Your task to perform on an android device: install app "Venmo" Image 0: 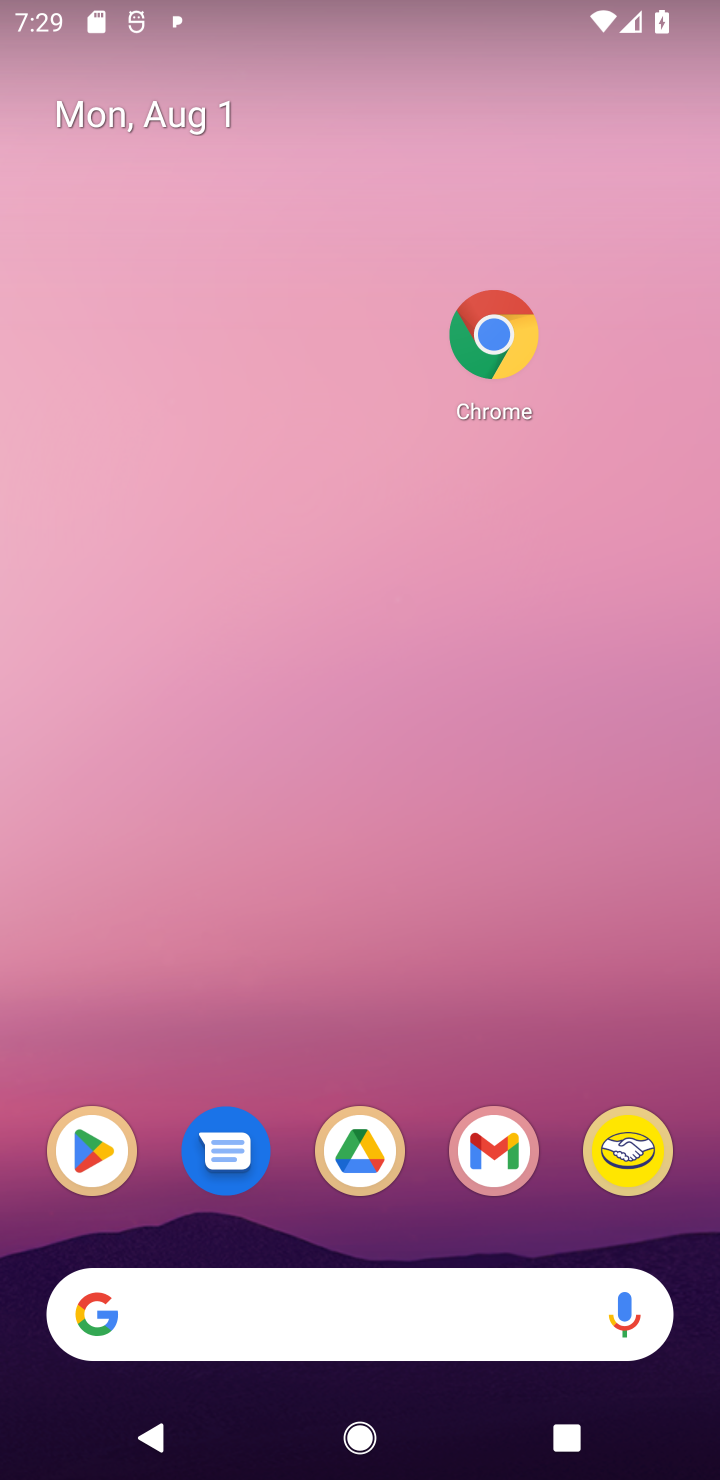
Step 0: click (91, 1161)
Your task to perform on an android device: install app "Venmo" Image 1: 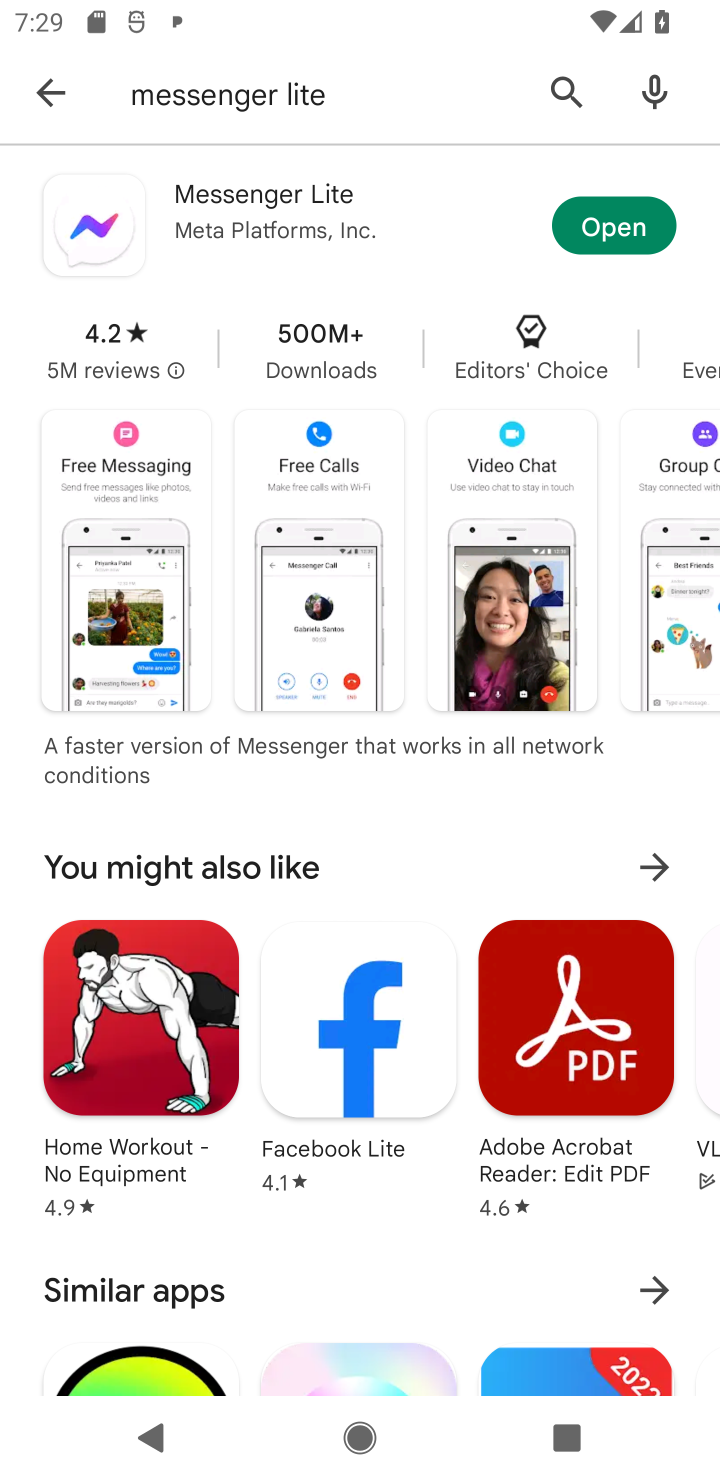
Step 1: click (558, 89)
Your task to perform on an android device: install app "Venmo" Image 2: 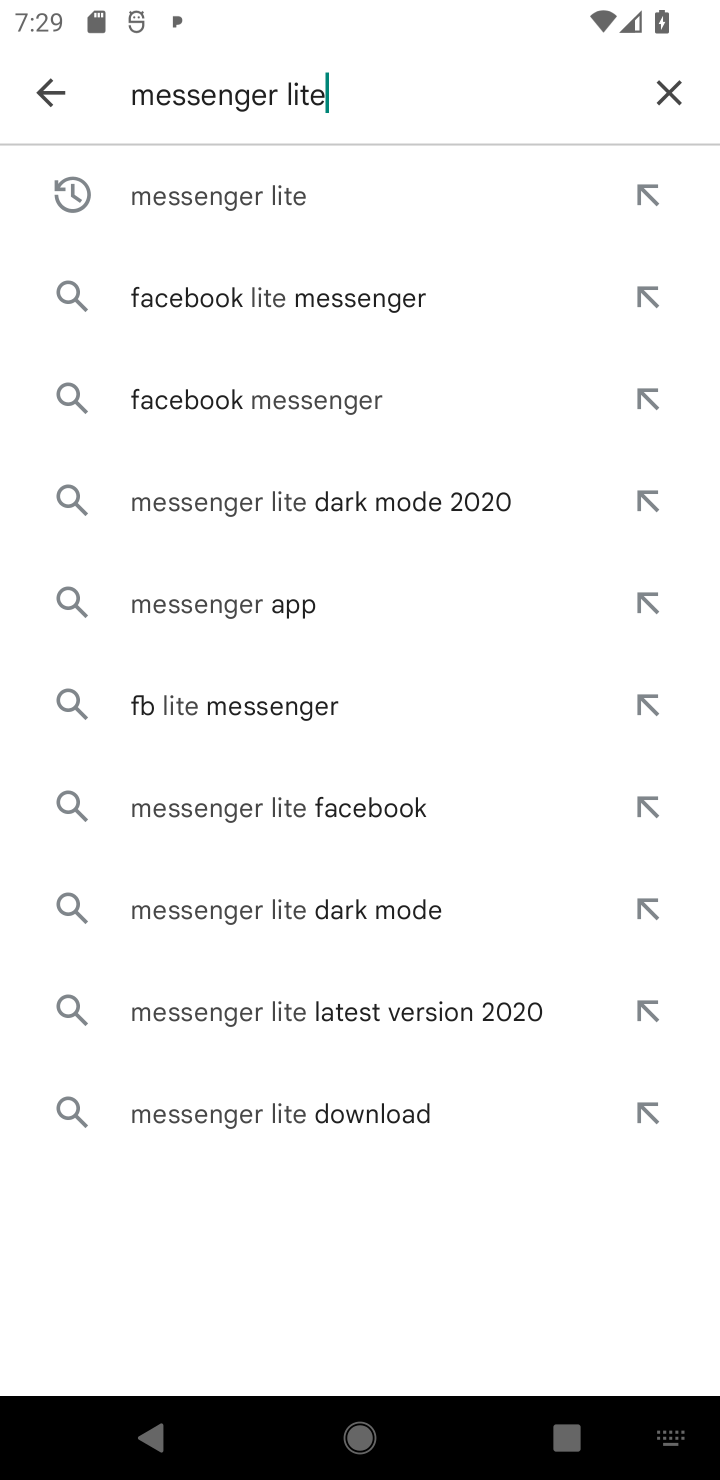
Step 2: click (671, 94)
Your task to perform on an android device: install app "Venmo" Image 3: 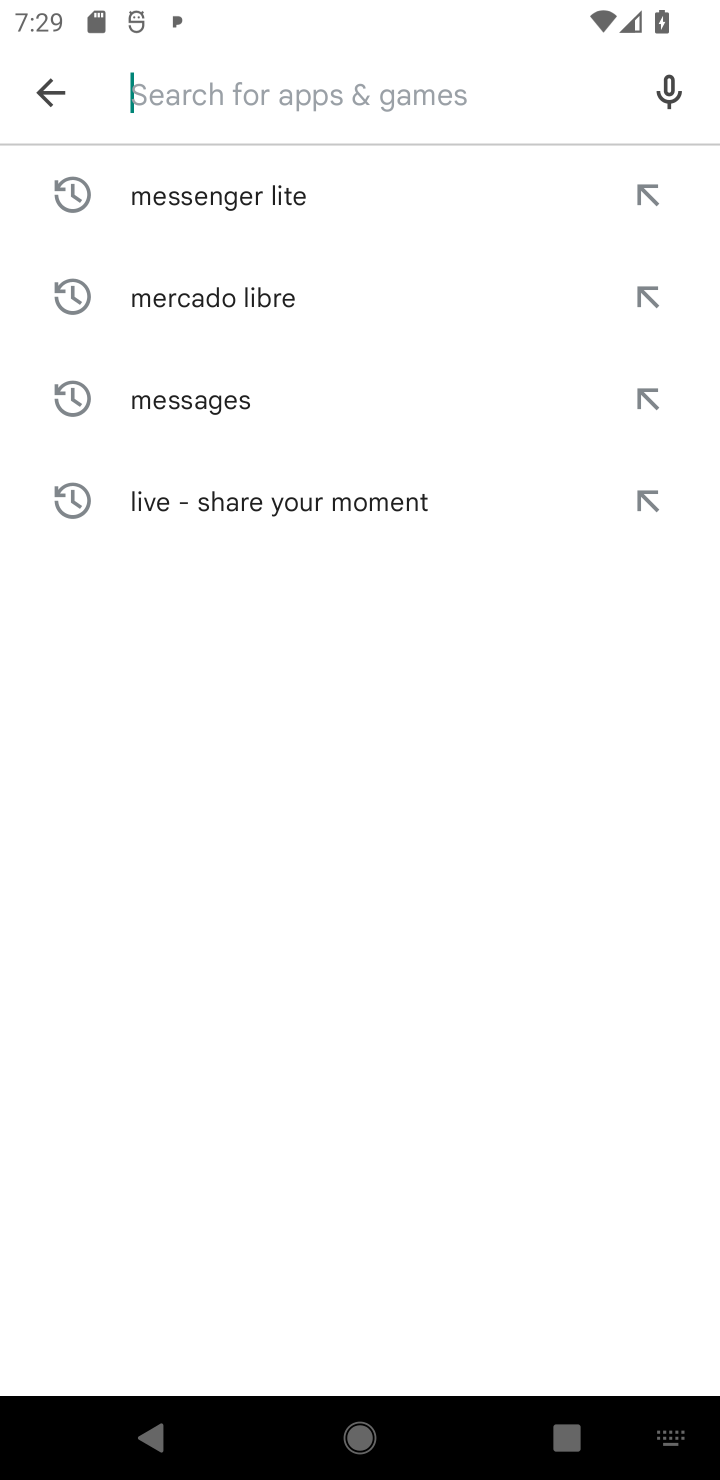
Step 3: type "Venmo"
Your task to perform on an android device: install app "Venmo" Image 4: 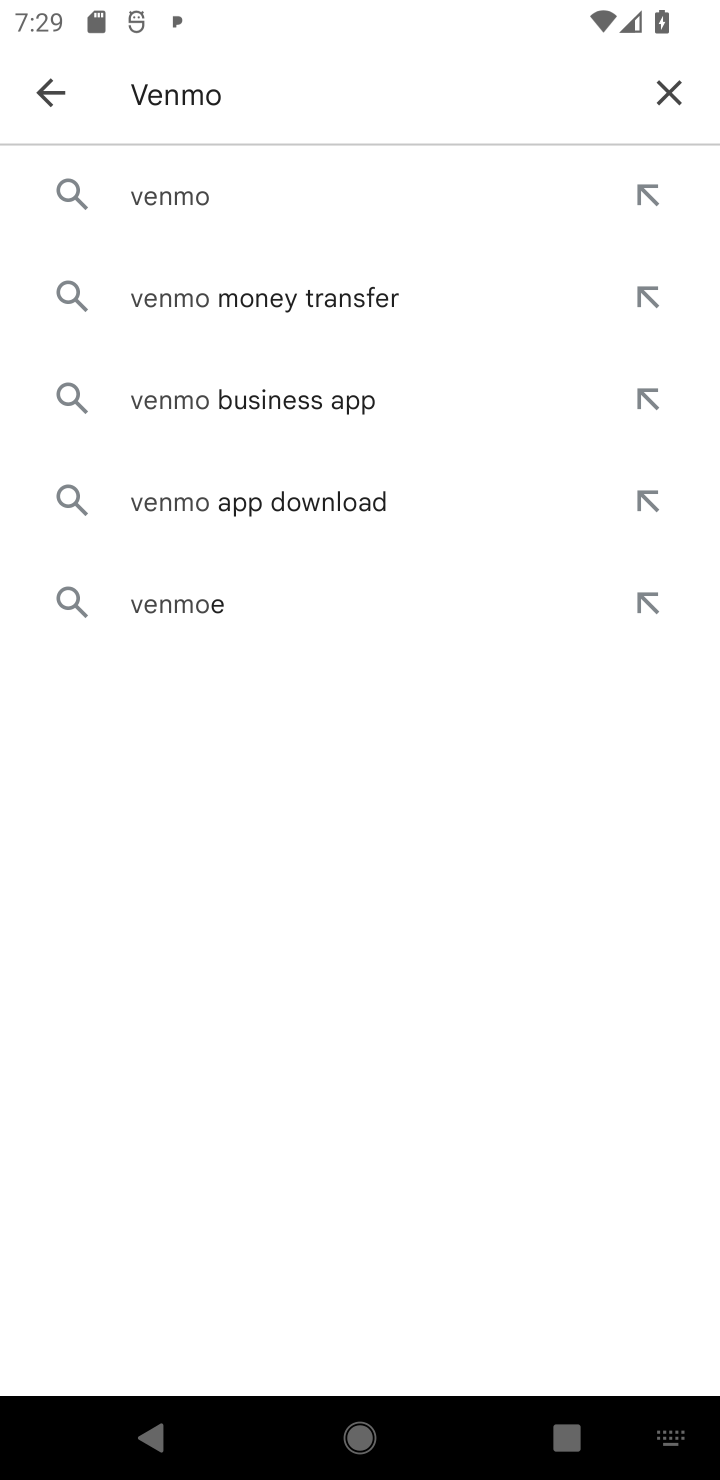
Step 4: click (154, 212)
Your task to perform on an android device: install app "Venmo" Image 5: 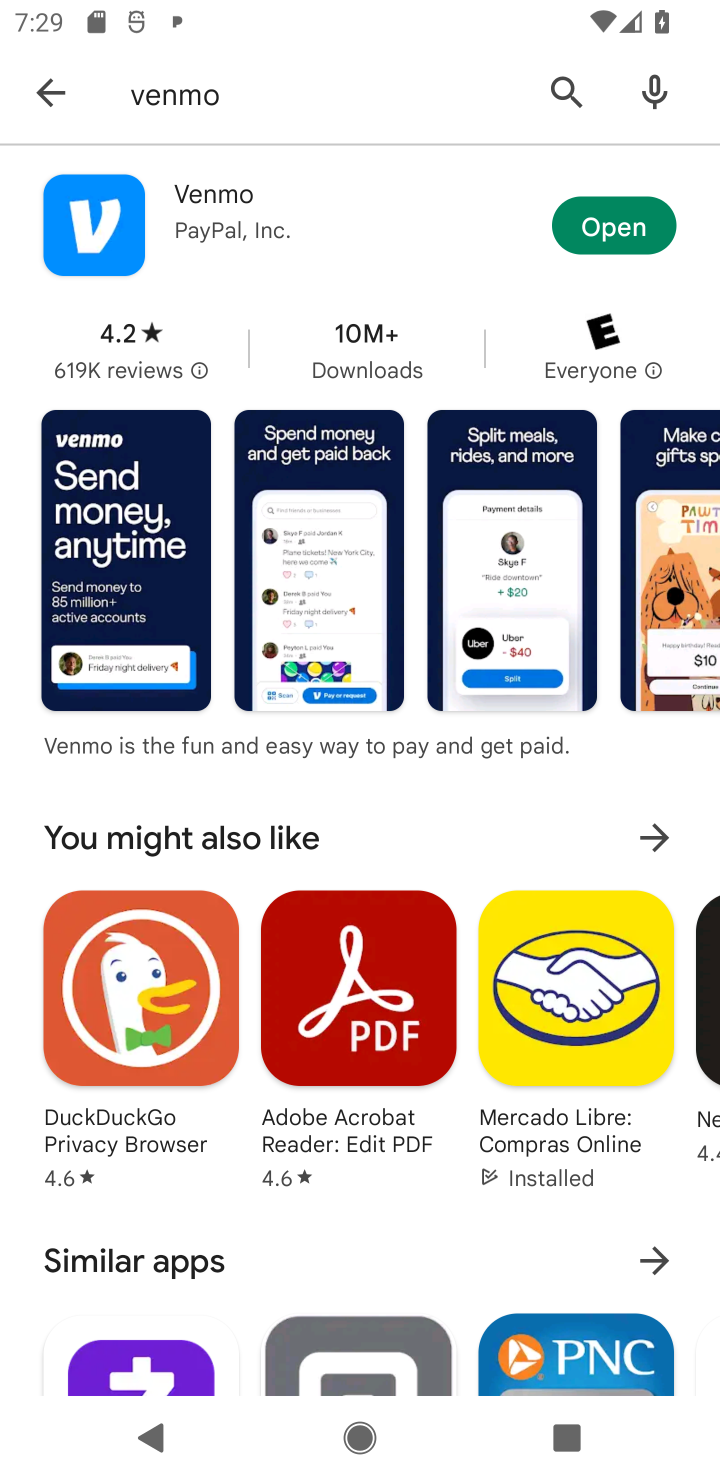
Step 5: task complete